Your task to perform on an android device: Open privacy settings Image 0: 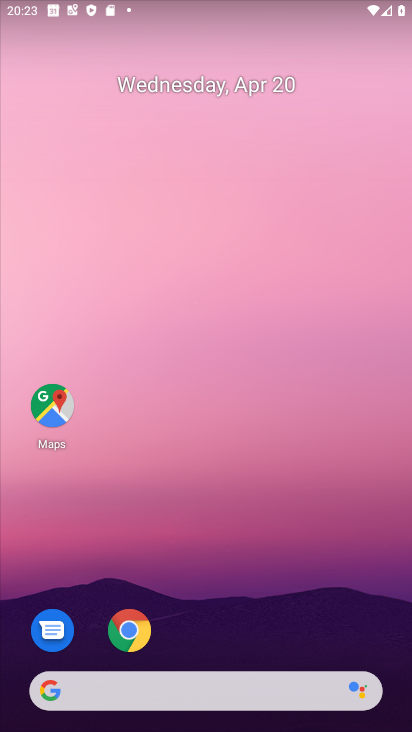
Step 0: drag from (211, 496) to (231, 71)
Your task to perform on an android device: Open privacy settings Image 1: 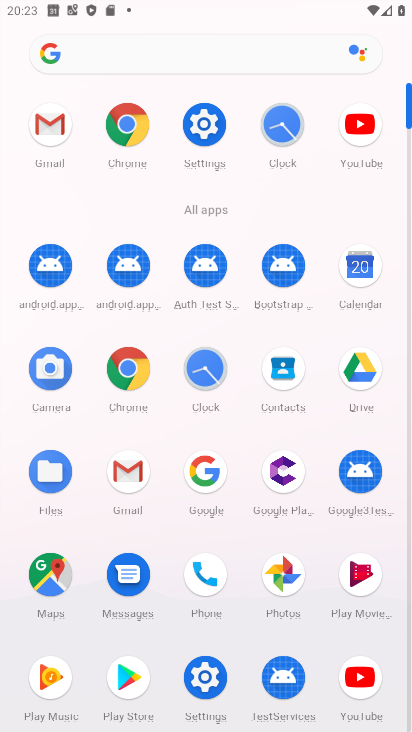
Step 1: click (204, 123)
Your task to perform on an android device: Open privacy settings Image 2: 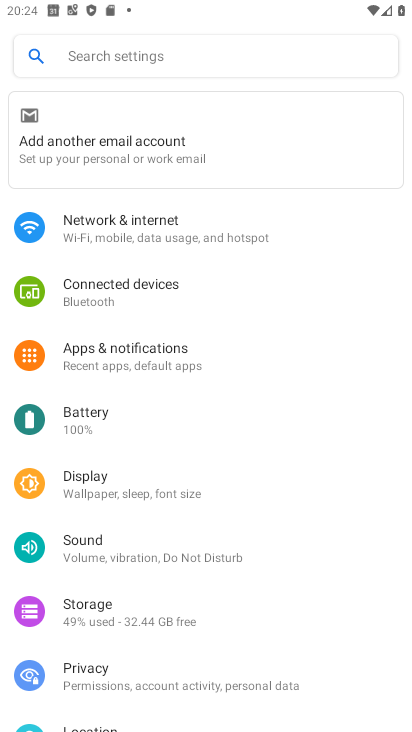
Step 2: click (144, 674)
Your task to perform on an android device: Open privacy settings Image 3: 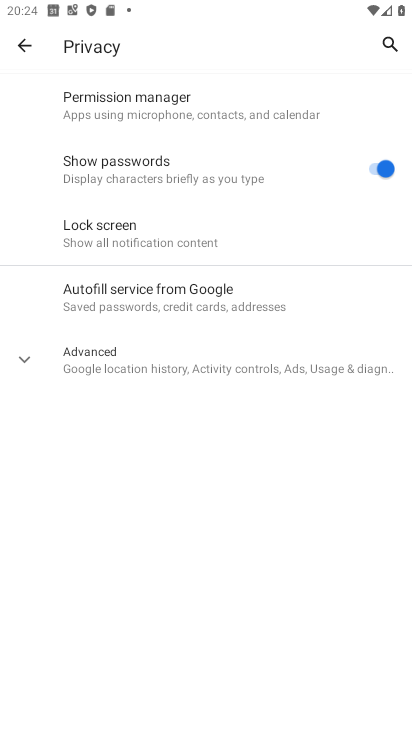
Step 3: task complete